Your task to perform on an android device: allow notifications from all sites in the chrome app Image 0: 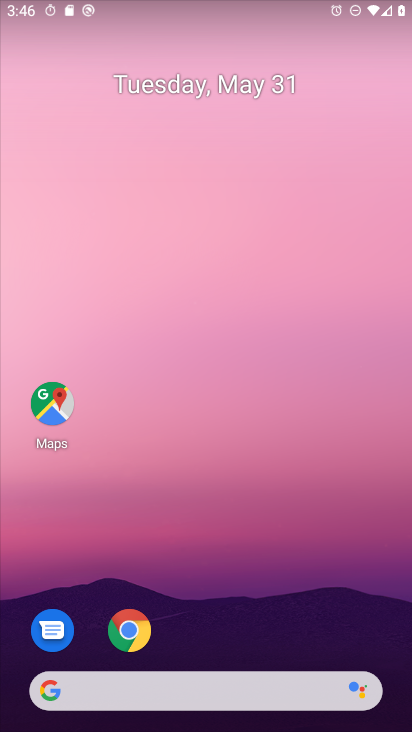
Step 0: click (197, 650)
Your task to perform on an android device: allow notifications from all sites in the chrome app Image 1: 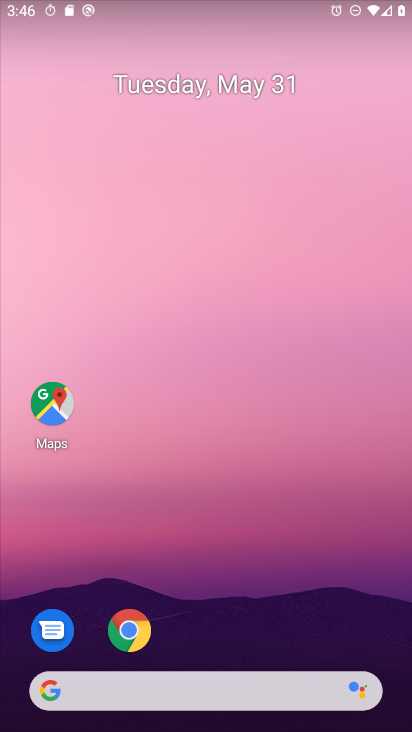
Step 1: drag from (199, 627) to (97, 12)
Your task to perform on an android device: allow notifications from all sites in the chrome app Image 2: 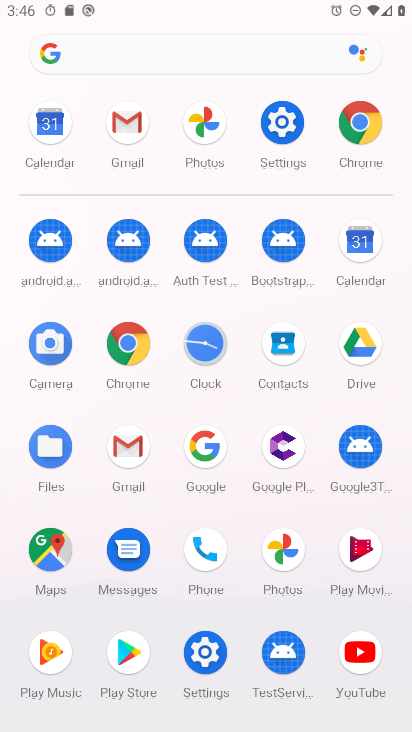
Step 2: click (132, 379)
Your task to perform on an android device: allow notifications from all sites in the chrome app Image 3: 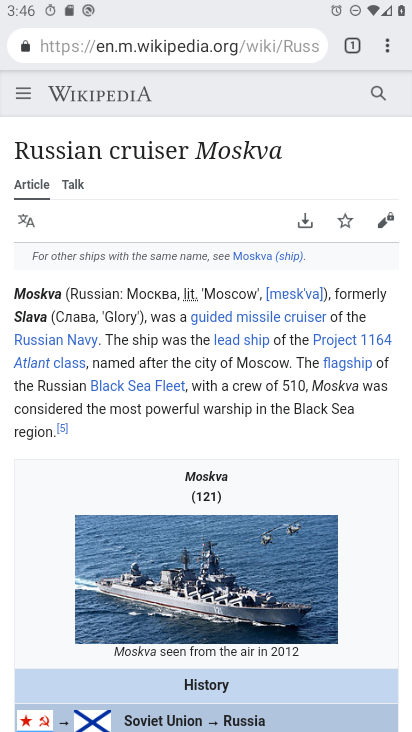
Step 3: drag from (383, 45) to (258, 561)
Your task to perform on an android device: allow notifications from all sites in the chrome app Image 4: 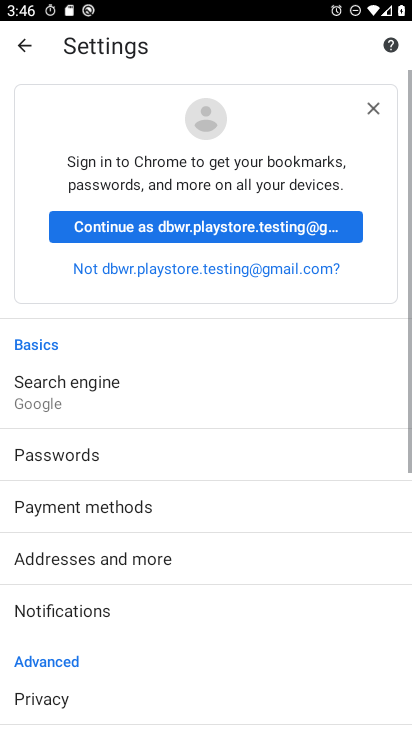
Step 4: drag from (148, 605) to (113, 106)
Your task to perform on an android device: allow notifications from all sites in the chrome app Image 5: 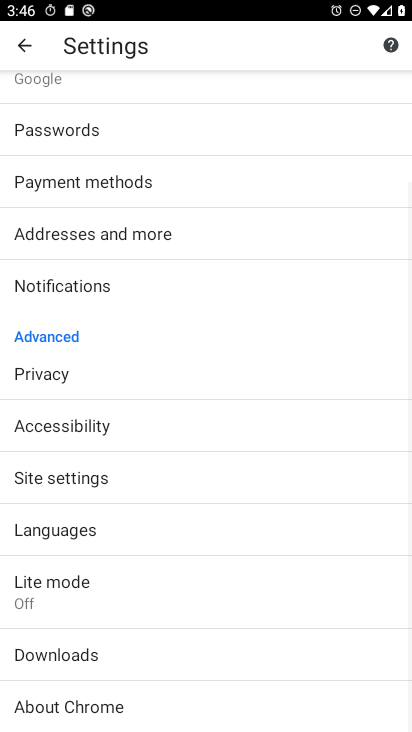
Step 5: click (100, 487)
Your task to perform on an android device: allow notifications from all sites in the chrome app Image 6: 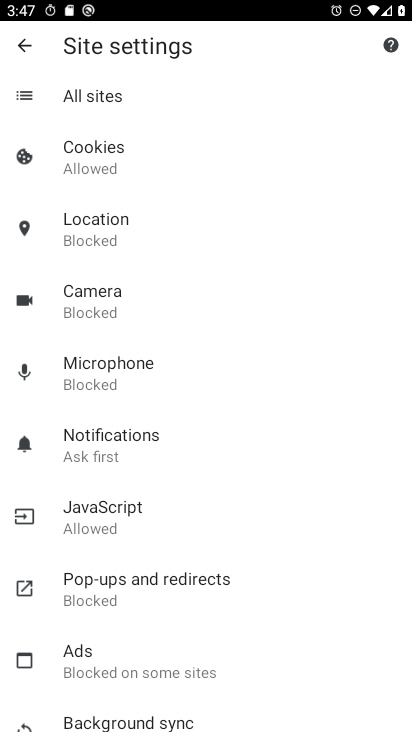
Step 6: click (128, 441)
Your task to perform on an android device: allow notifications from all sites in the chrome app Image 7: 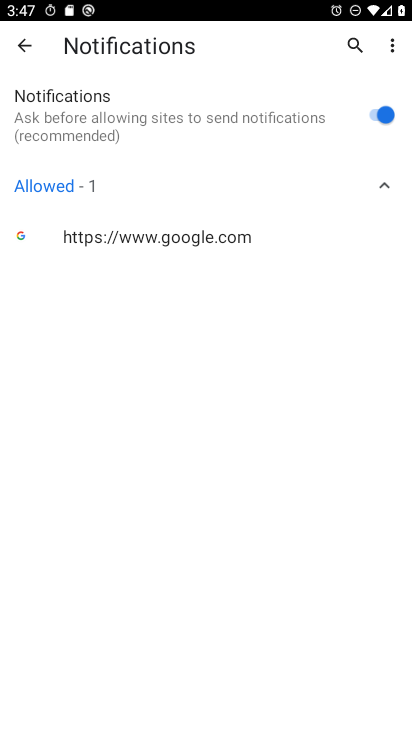
Step 7: click (237, 236)
Your task to perform on an android device: allow notifications from all sites in the chrome app Image 8: 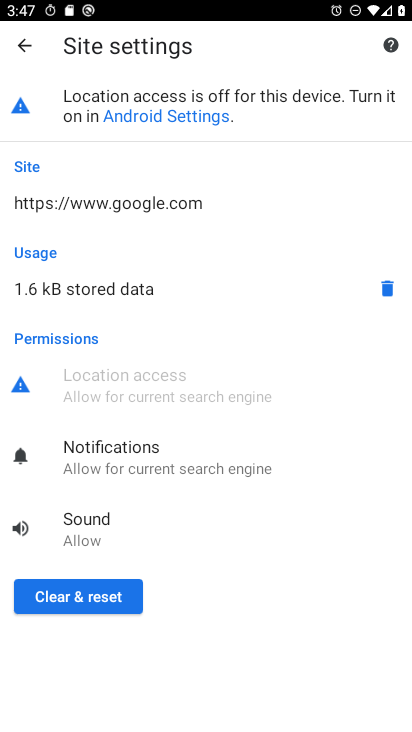
Step 8: task complete